Your task to perform on an android device: uninstall "Pluto TV - Live TV and Movies" Image 0: 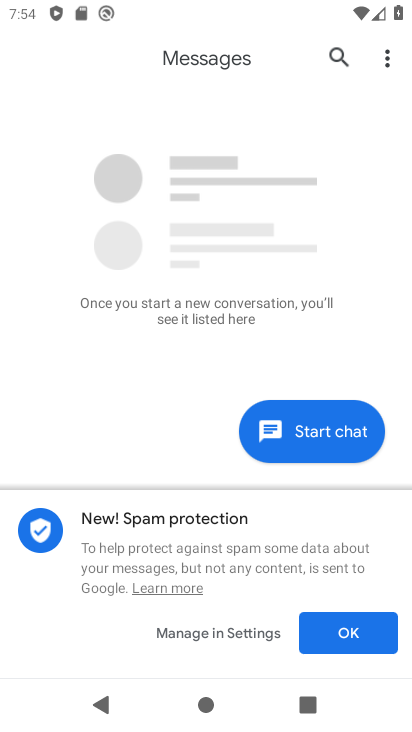
Step 0: press home button
Your task to perform on an android device: uninstall "Pluto TV - Live TV and Movies" Image 1: 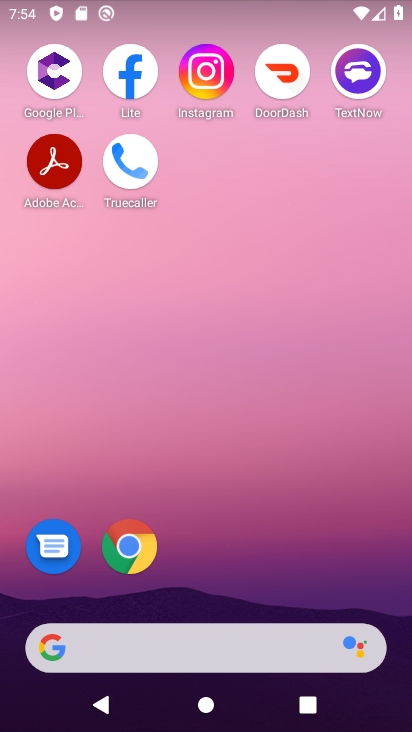
Step 1: drag from (251, 485) to (322, 0)
Your task to perform on an android device: uninstall "Pluto TV - Live TV and Movies" Image 2: 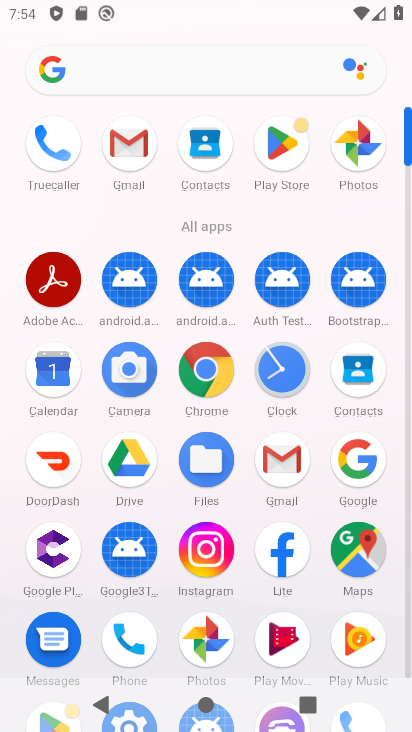
Step 2: click (275, 148)
Your task to perform on an android device: uninstall "Pluto TV - Live TV and Movies" Image 3: 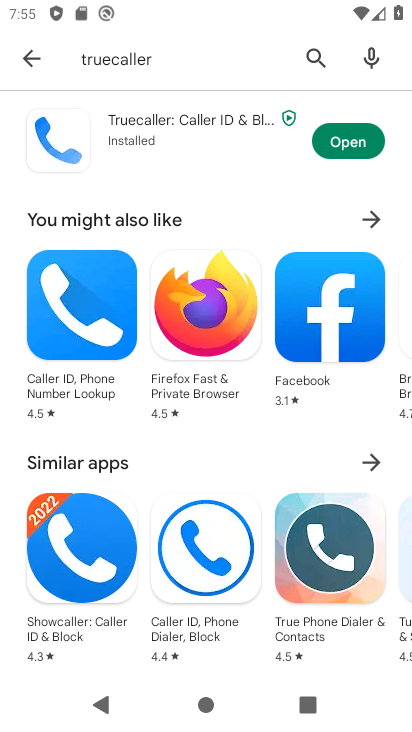
Step 3: type "Pluto TV - live tv and movies"
Your task to perform on an android device: uninstall "Pluto TV - Live TV and Movies" Image 4: 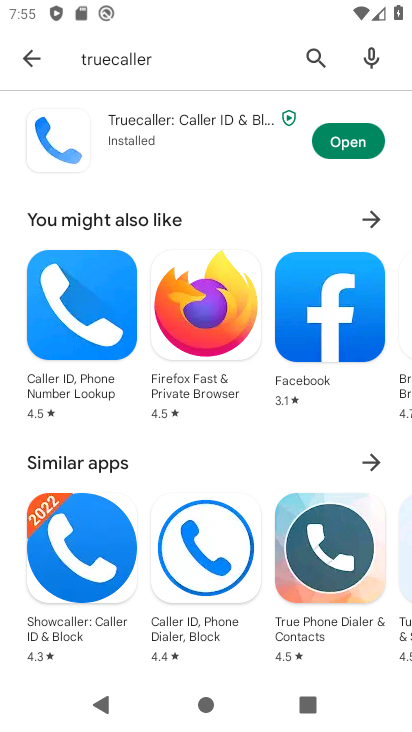
Step 4: click (263, 63)
Your task to perform on an android device: uninstall "Pluto TV - Live TV and Movies" Image 5: 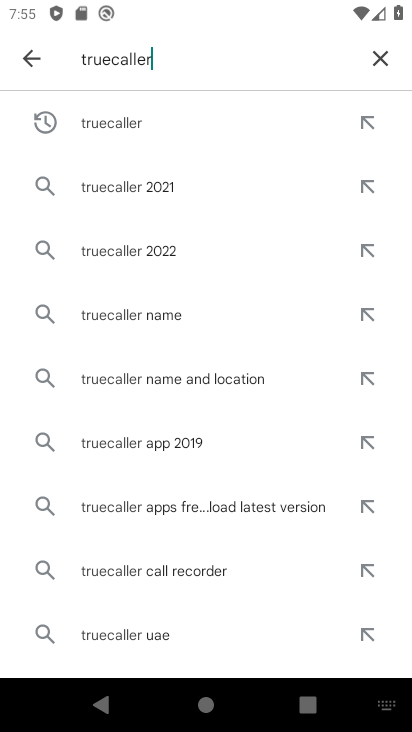
Step 5: click (384, 60)
Your task to perform on an android device: uninstall "Pluto TV - Live TV and Movies" Image 6: 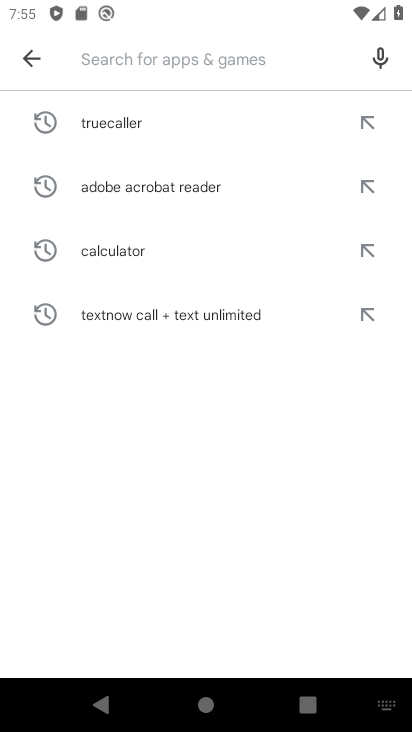
Step 6: type "Pluto tv"
Your task to perform on an android device: uninstall "Pluto TV - Live TV and Movies" Image 7: 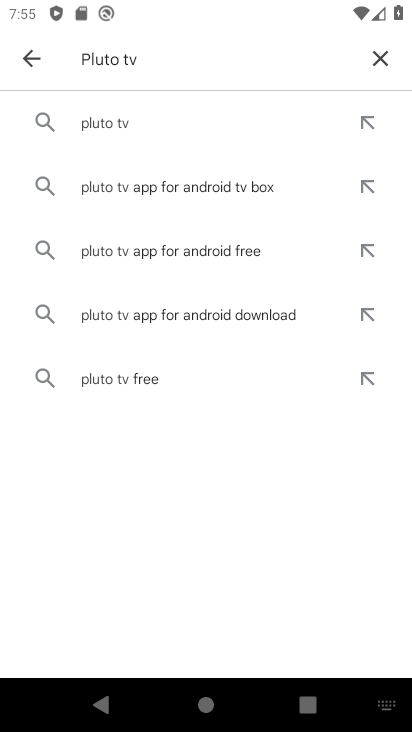
Step 7: click (108, 119)
Your task to perform on an android device: uninstall "Pluto TV - Live TV and Movies" Image 8: 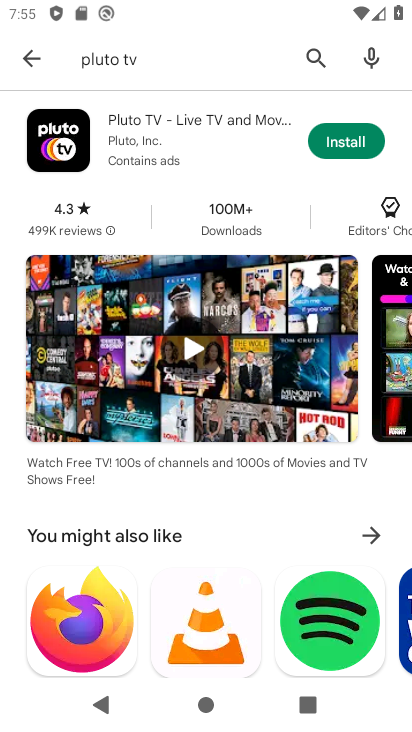
Step 8: task complete